Your task to perform on an android device: turn off wifi Image 0: 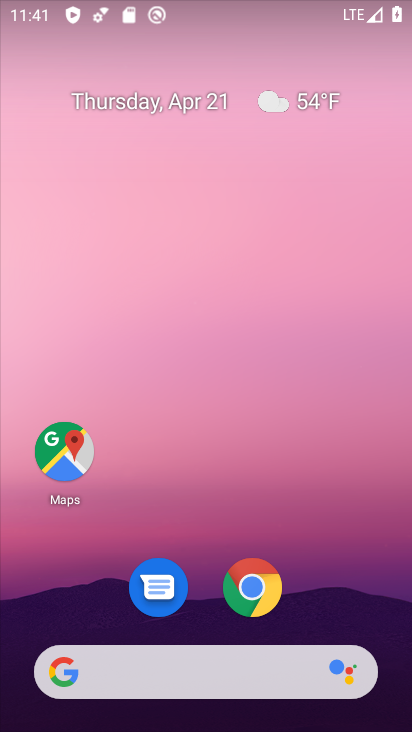
Step 0: drag from (105, 3) to (121, 477)
Your task to perform on an android device: turn off wifi Image 1: 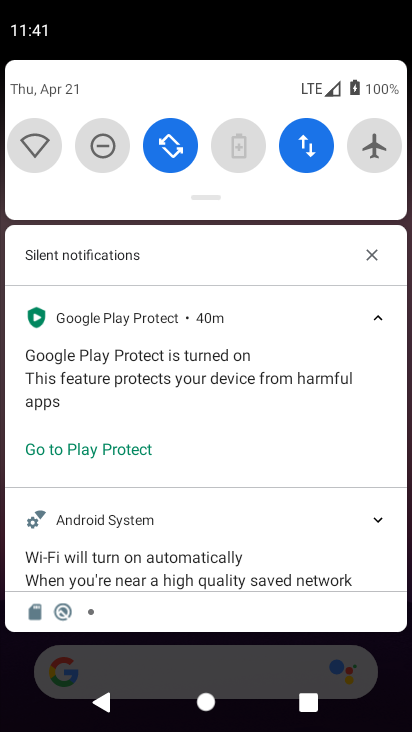
Step 1: task complete